Your task to perform on an android device: Open Wikipedia Image 0: 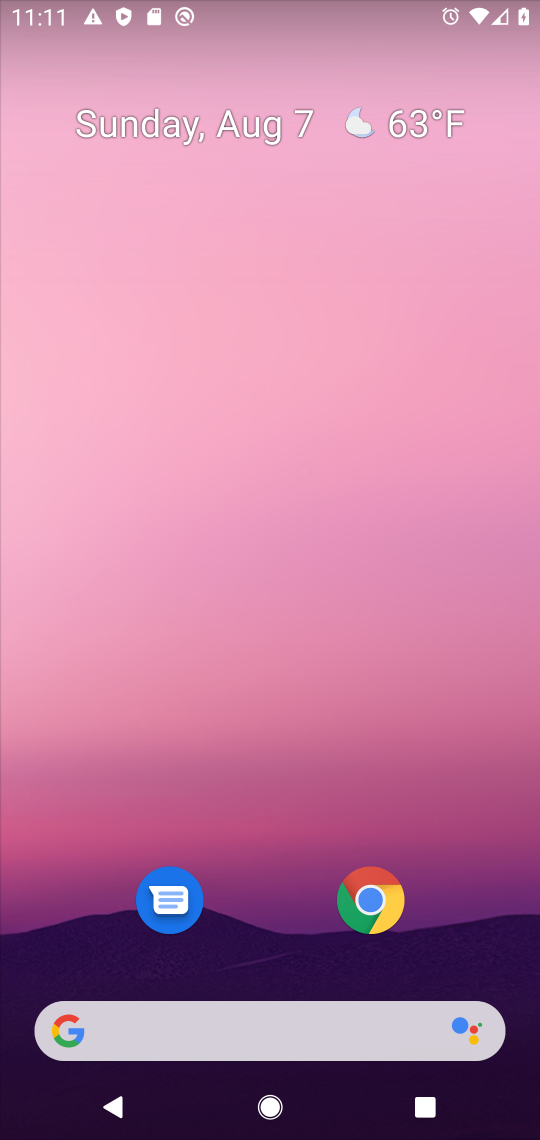
Step 0: press home button
Your task to perform on an android device: Open Wikipedia Image 1: 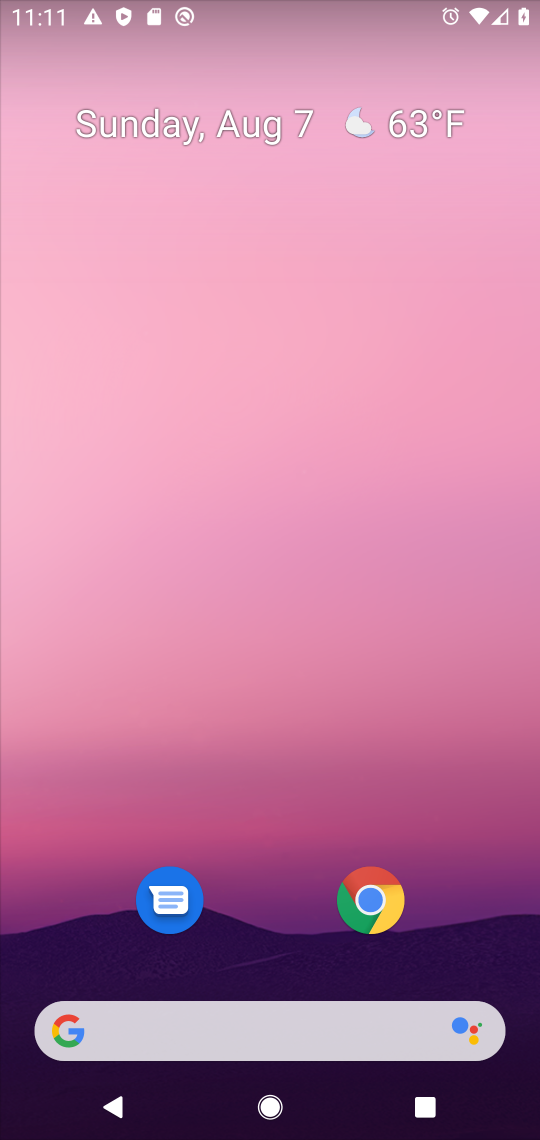
Step 1: drag from (274, 949) to (325, 31)
Your task to perform on an android device: Open Wikipedia Image 2: 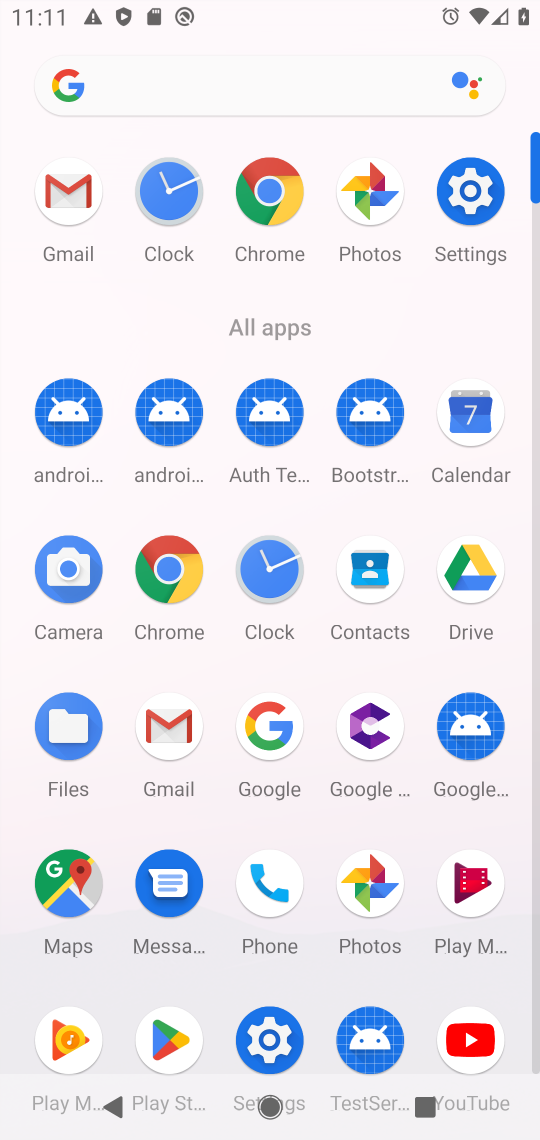
Step 2: click (271, 188)
Your task to perform on an android device: Open Wikipedia Image 3: 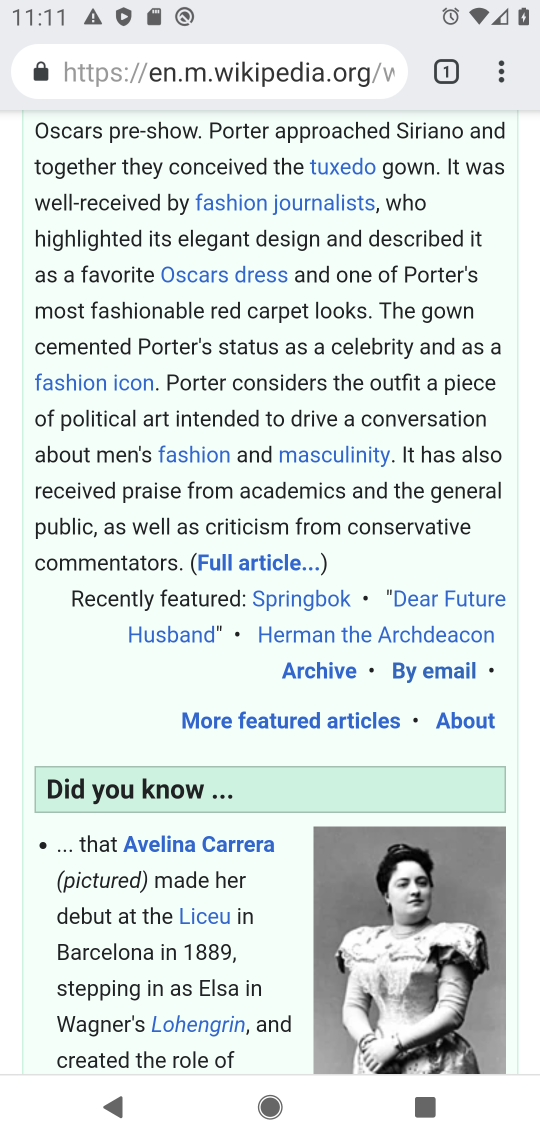
Step 3: task complete